Your task to perform on an android device: toggle wifi Image 0: 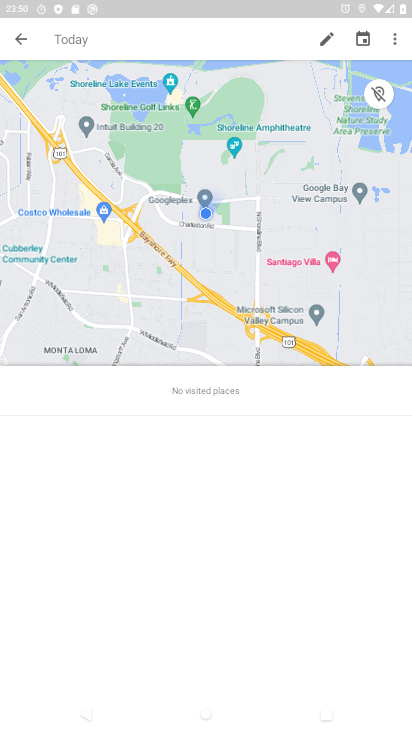
Step 0: press home button
Your task to perform on an android device: toggle wifi Image 1: 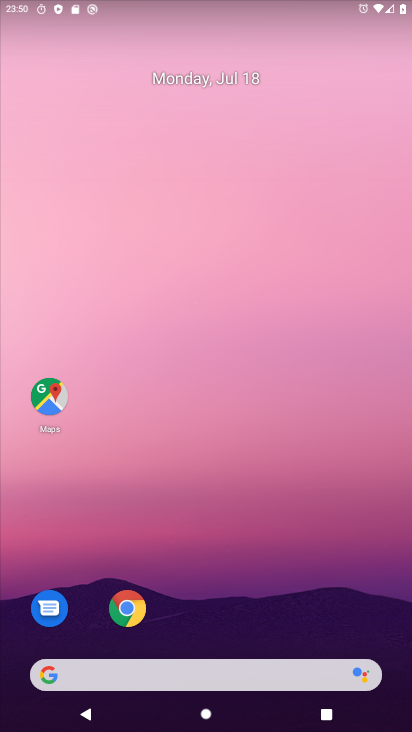
Step 1: drag from (214, 671) to (337, 188)
Your task to perform on an android device: toggle wifi Image 2: 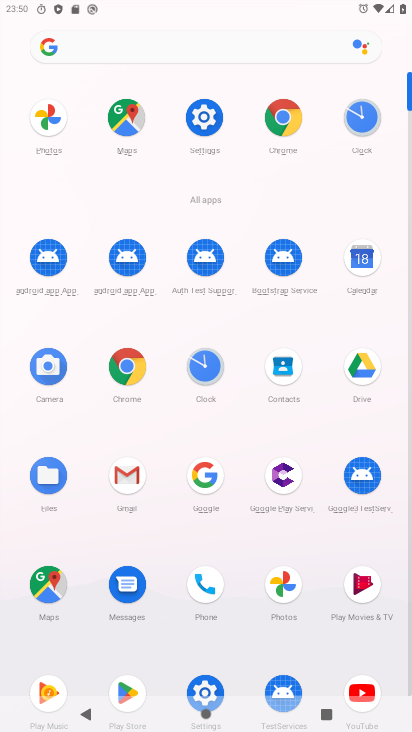
Step 2: click (204, 116)
Your task to perform on an android device: toggle wifi Image 3: 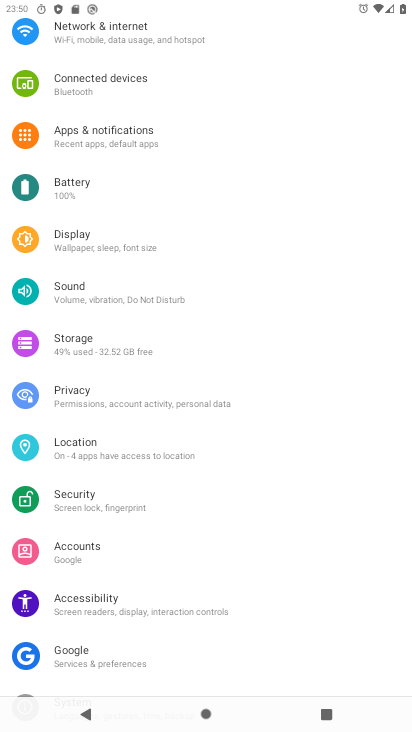
Step 3: drag from (200, 119) to (173, 308)
Your task to perform on an android device: toggle wifi Image 4: 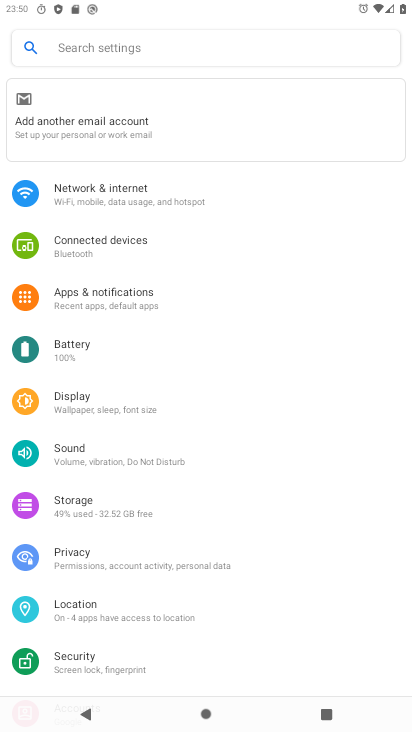
Step 4: click (142, 193)
Your task to perform on an android device: toggle wifi Image 5: 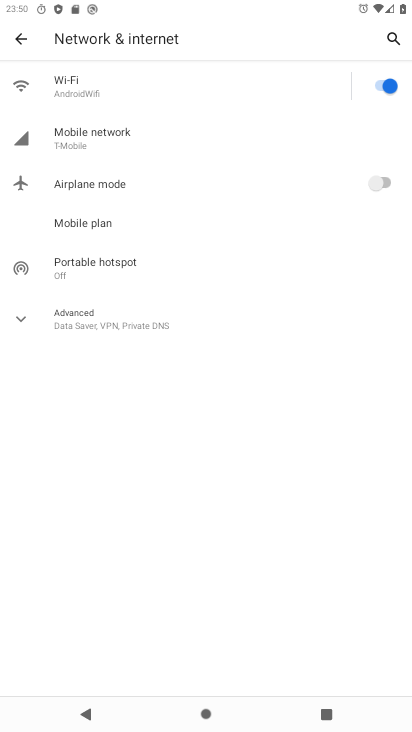
Step 5: click (390, 81)
Your task to perform on an android device: toggle wifi Image 6: 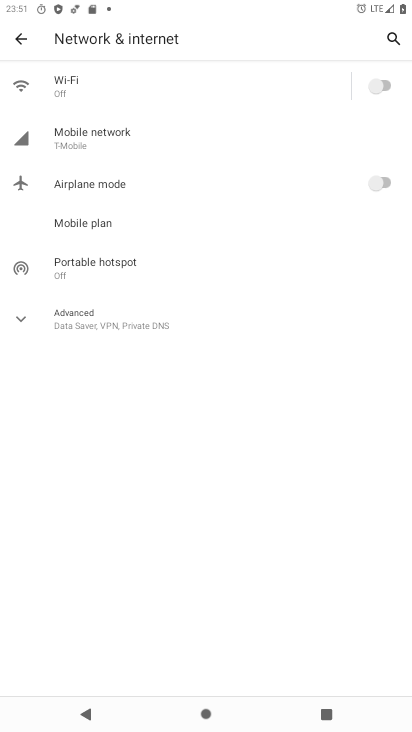
Step 6: task complete